Your task to perform on an android device: See recent photos Image 0: 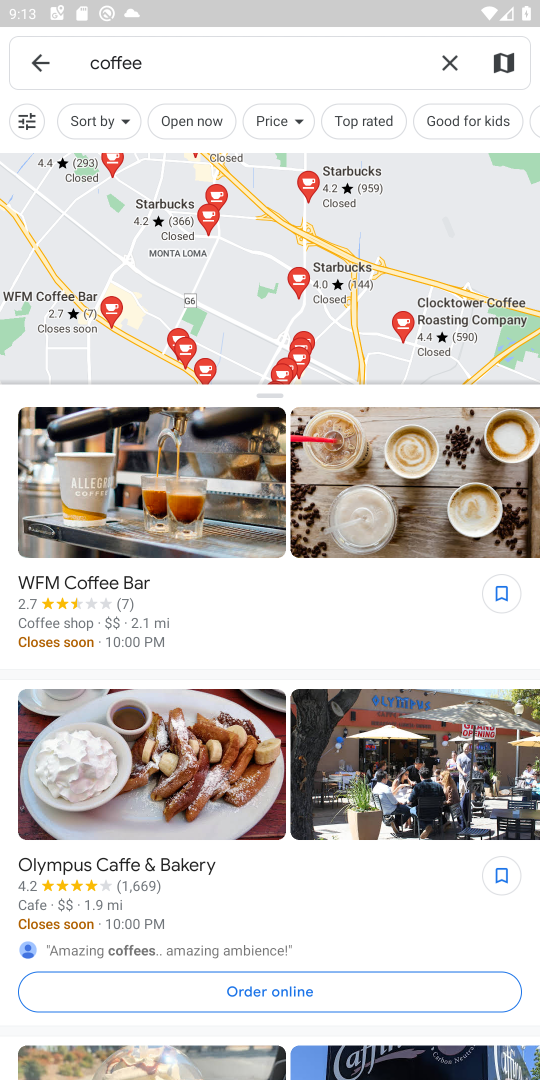
Step 0: press home button
Your task to perform on an android device: See recent photos Image 1: 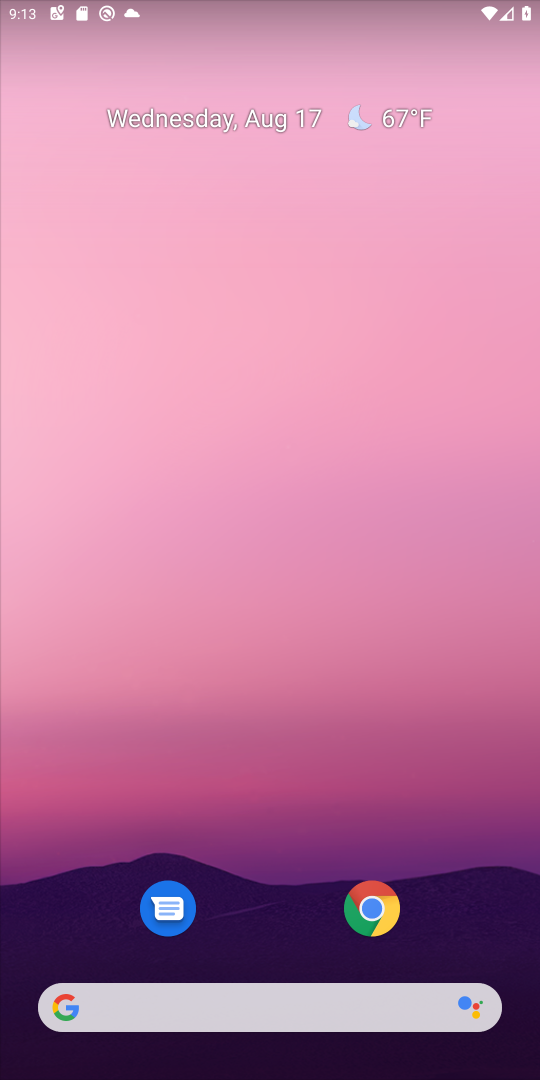
Step 1: drag from (284, 903) to (231, 60)
Your task to perform on an android device: See recent photos Image 2: 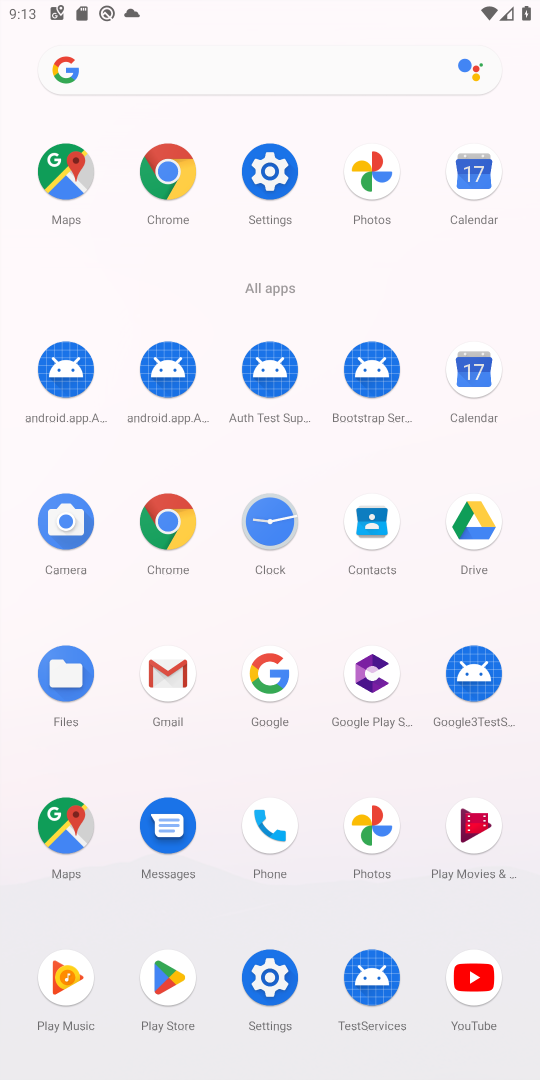
Step 2: click (369, 807)
Your task to perform on an android device: See recent photos Image 3: 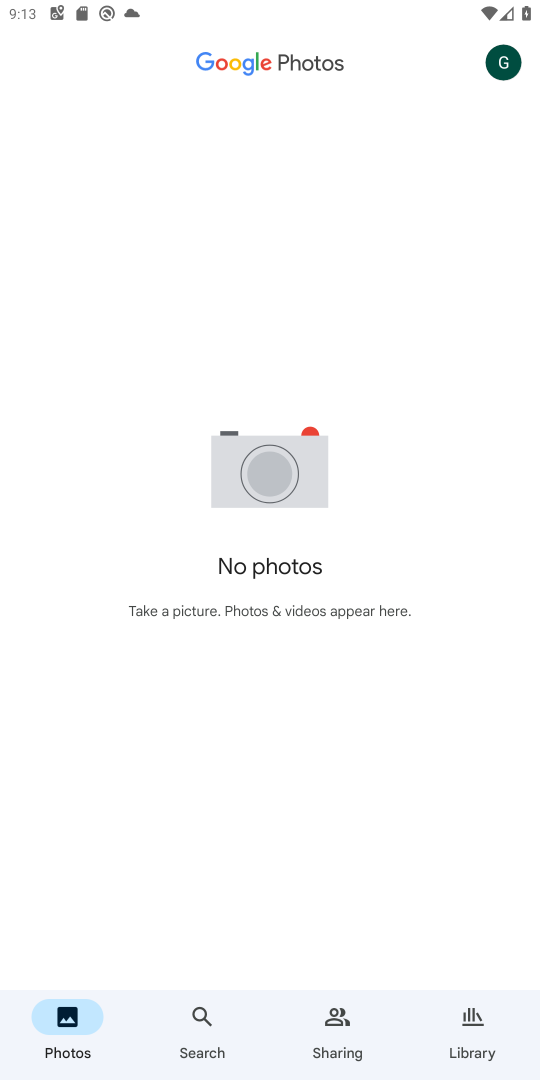
Step 3: click (58, 1014)
Your task to perform on an android device: See recent photos Image 4: 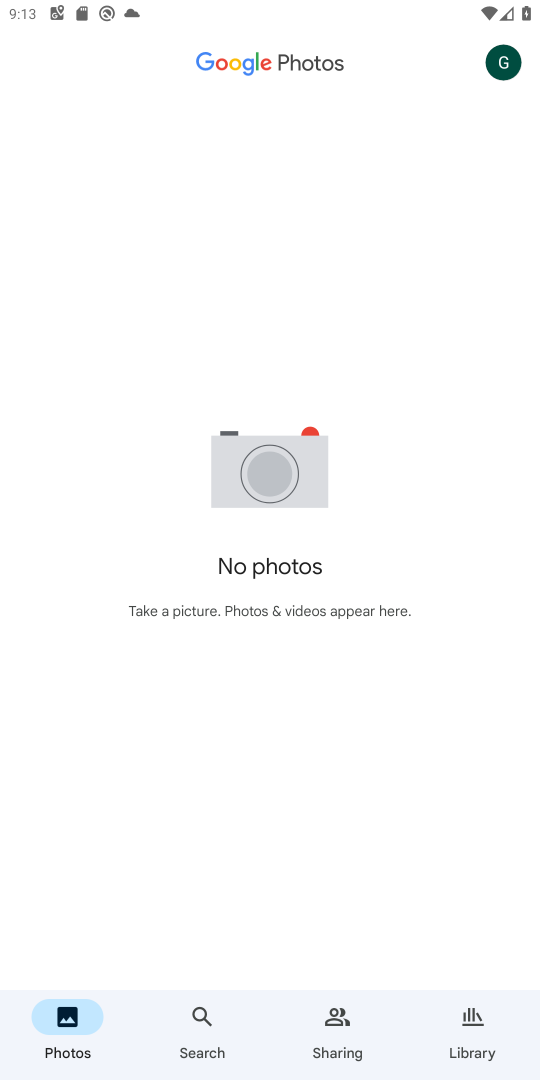
Step 4: task complete